Your task to perform on an android device: Open ESPN.com Image 0: 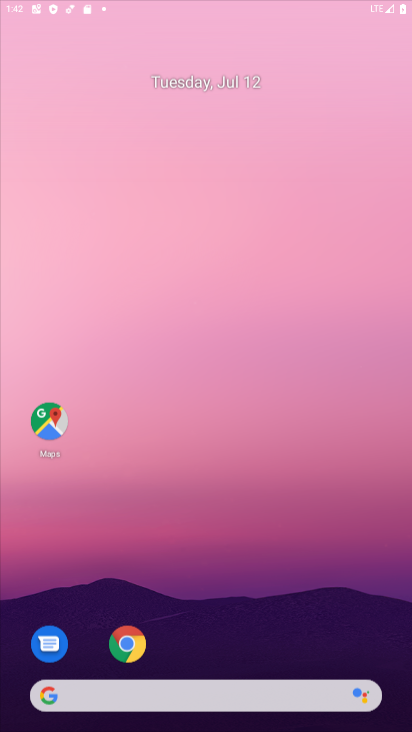
Step 0: press home button
Your task to perform on an android device: Open ESPN.com Image 1: 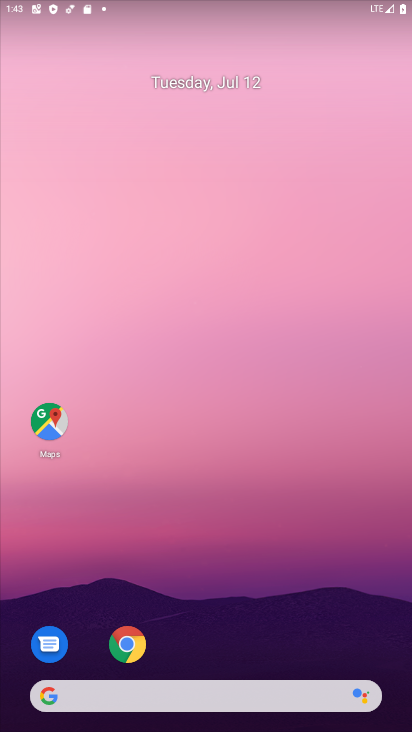
Step 1: click (139, 652)
Your task to perform on an android device: Open ESPN.com Image 2: 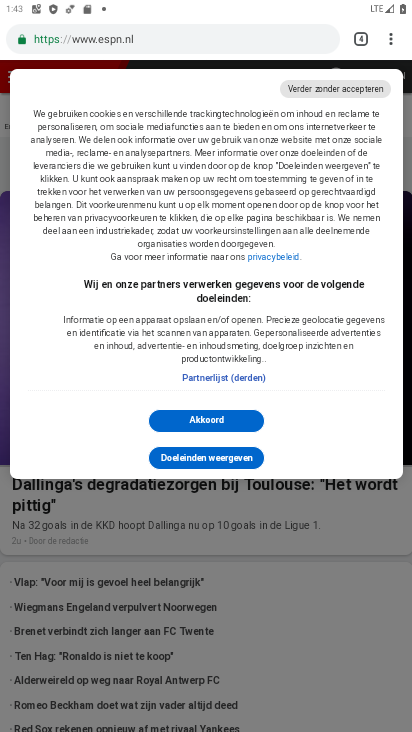
Step 2: click (353, 46)
Your task to perform on an android device: Open ESPN.com Image 3: 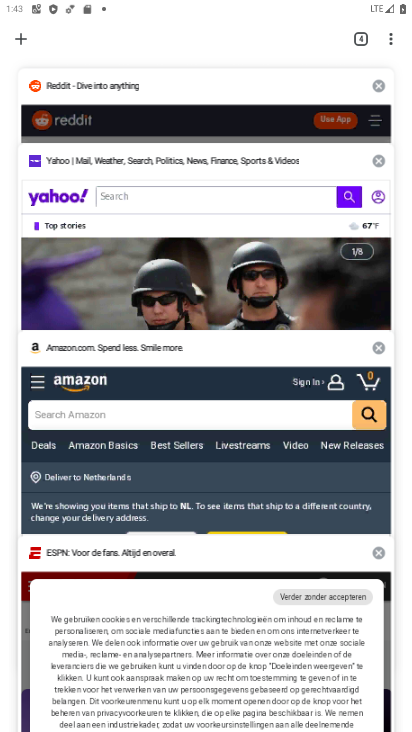
Step 3: click (21, 31)
Your task to perform on an android device: Open ESPN.com Image 4: 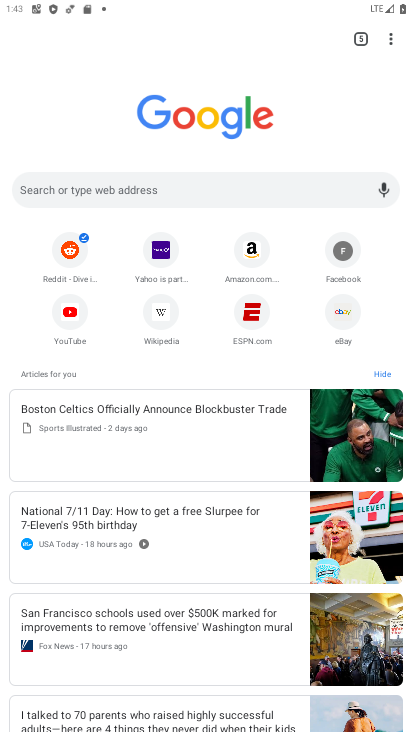
Step 4: click (252, 312)
Your task to perform on an android device: Open ESPN.com Image 5: 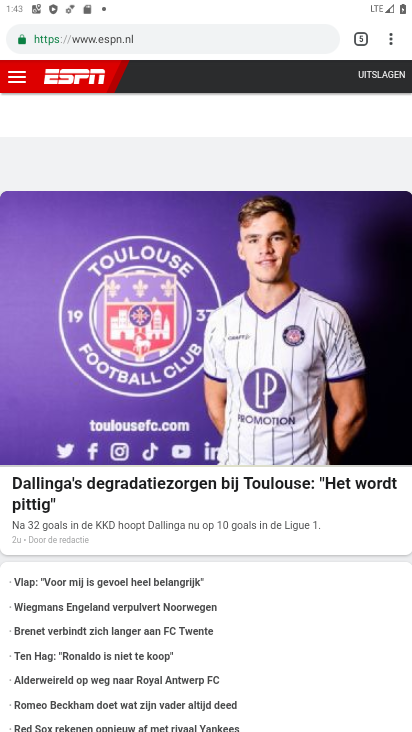
Step 5: task complete